Your task to perform on an android device: change your default location settings in chrome Image 0: 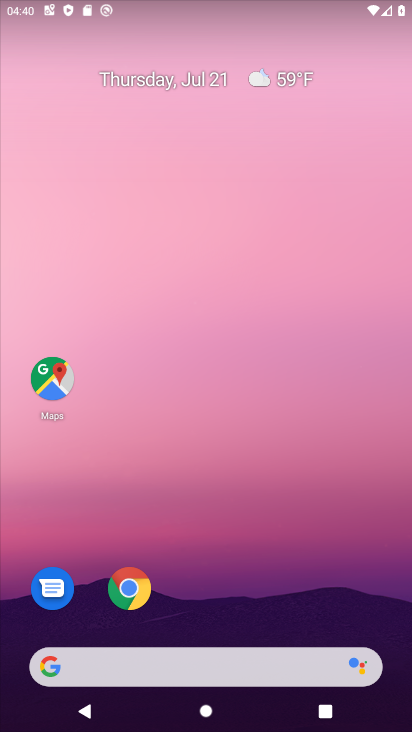
Step 0: drag from (209, 598) to (220, 165)
Your task to perform on an android device: change your default location settings in chrome Image 1: 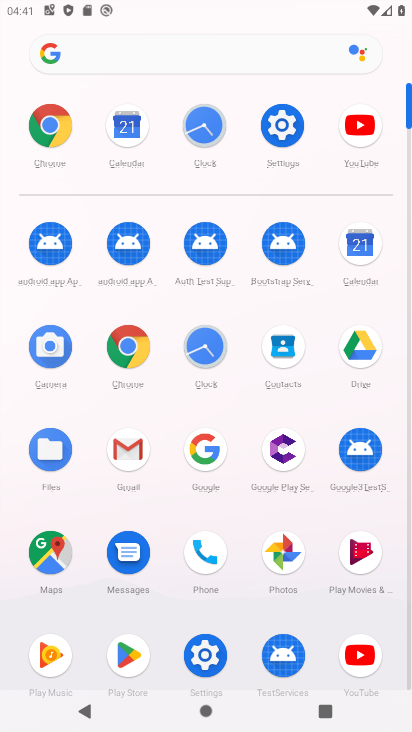
Step 1: click (126, 356)
Your task to perform on an android device: change your default location settings in chrome Image 2: 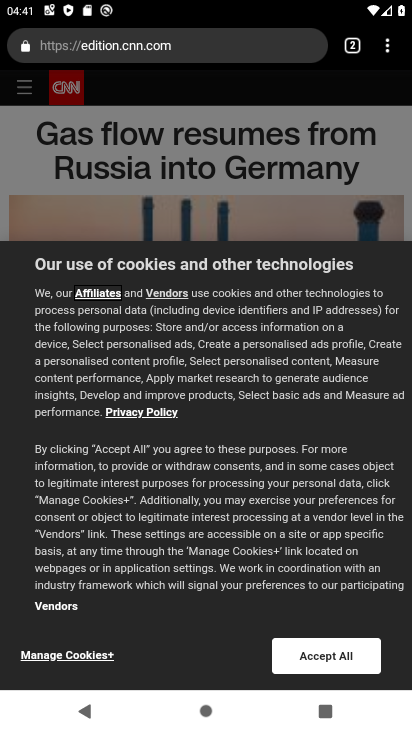
Step 2: click (387, 43)
Your task to perform on an android device: change your default location settings in chrome Image 3: 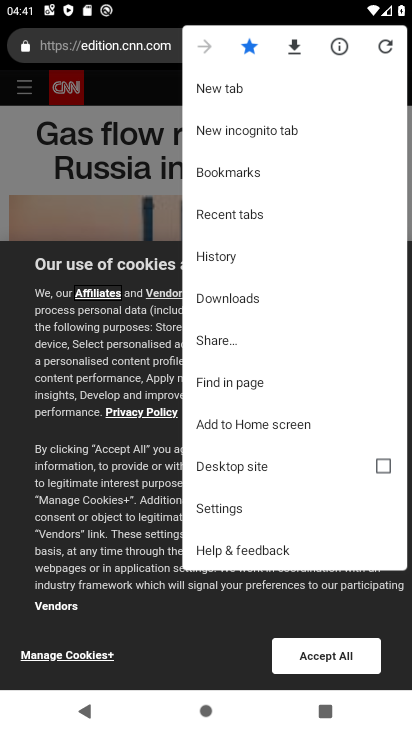
Step 3: click (232, 508)
Your task to perform on an android device: change your default location settings in chrome Image 4: 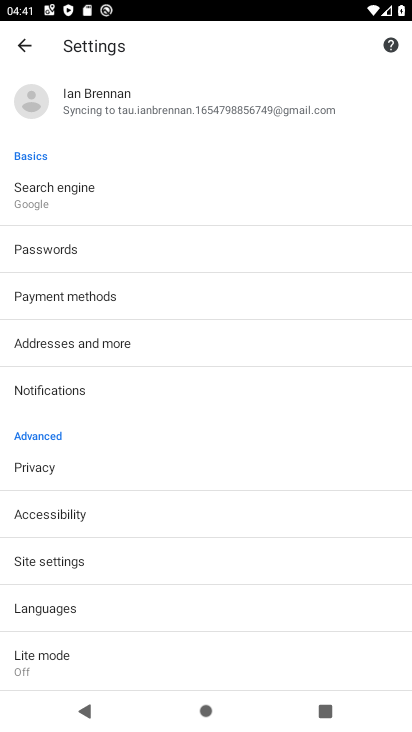
Step 4: click (46, 567)
Your task to perform on an android device: change your default location settings in chrome Image 5: 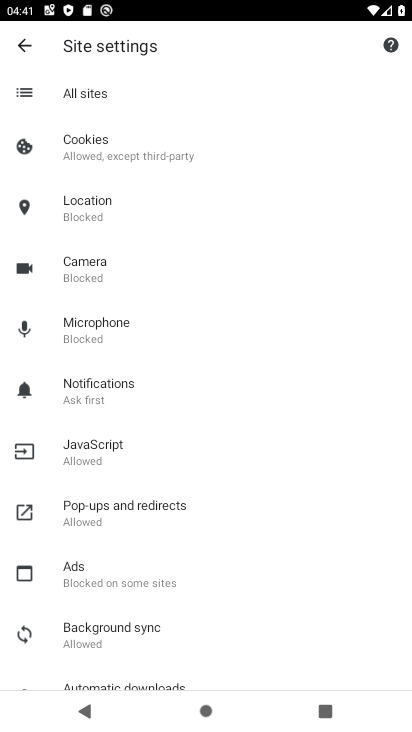
Step 5: click (89, 210)
Your task to perform on an android device: change your default location settings in chrome Image 6: 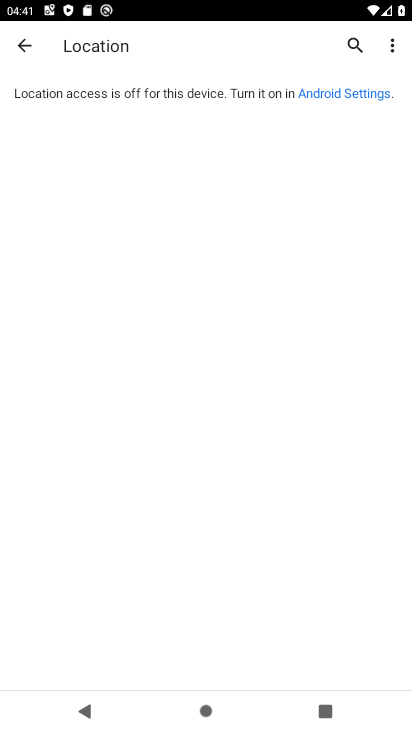
Step 6: click (359, 92)
Your task to perform on an android device: change your default location settings in chrome Image 7: 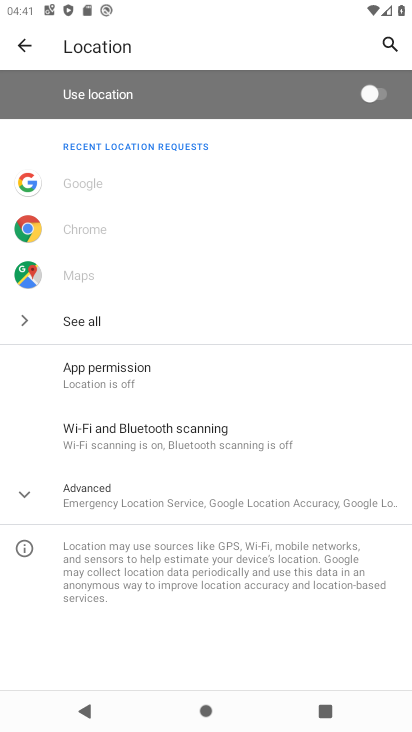
Step 7: click (339, 96)
Your task to perform on an android device: change your default location settings in chrome Image 8: 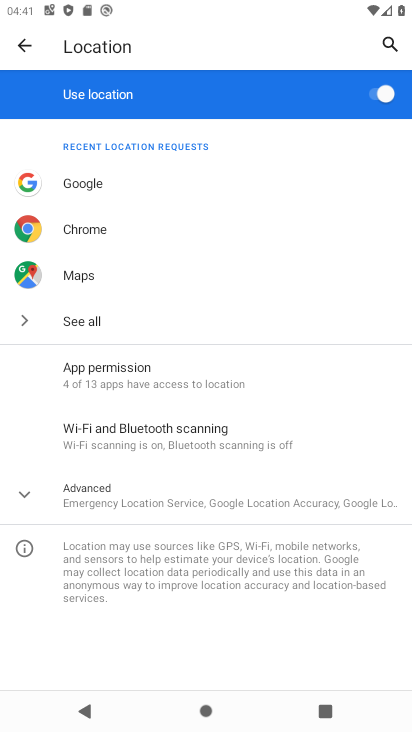
Step 8: task complete